Your task to perform on an android device: Open accessibility settings Image 0: 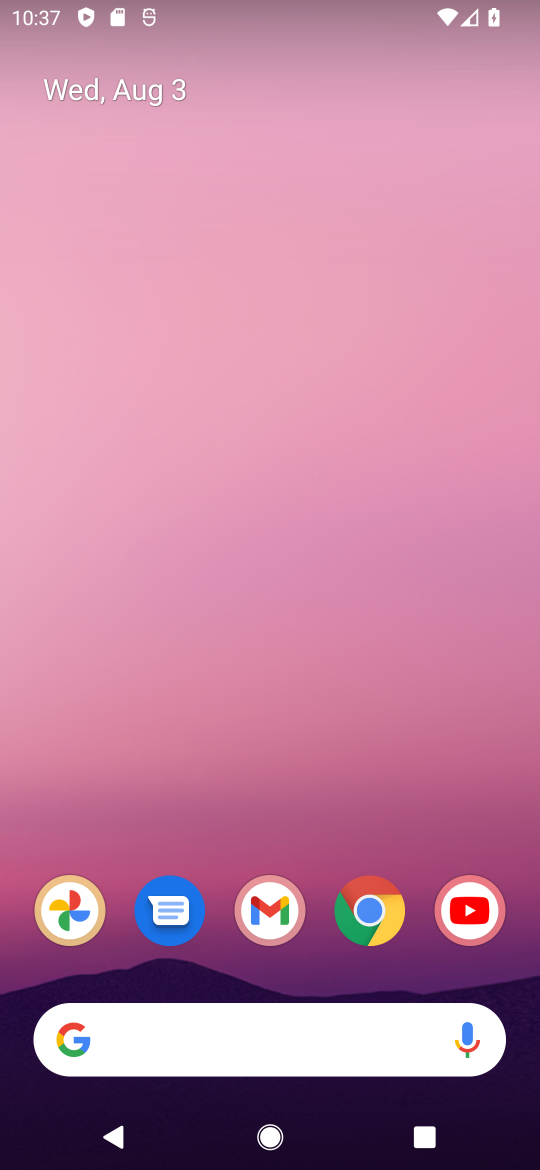
Step 0: press home button
Your task to perform on an android device: Open accessibility settings Image 1: 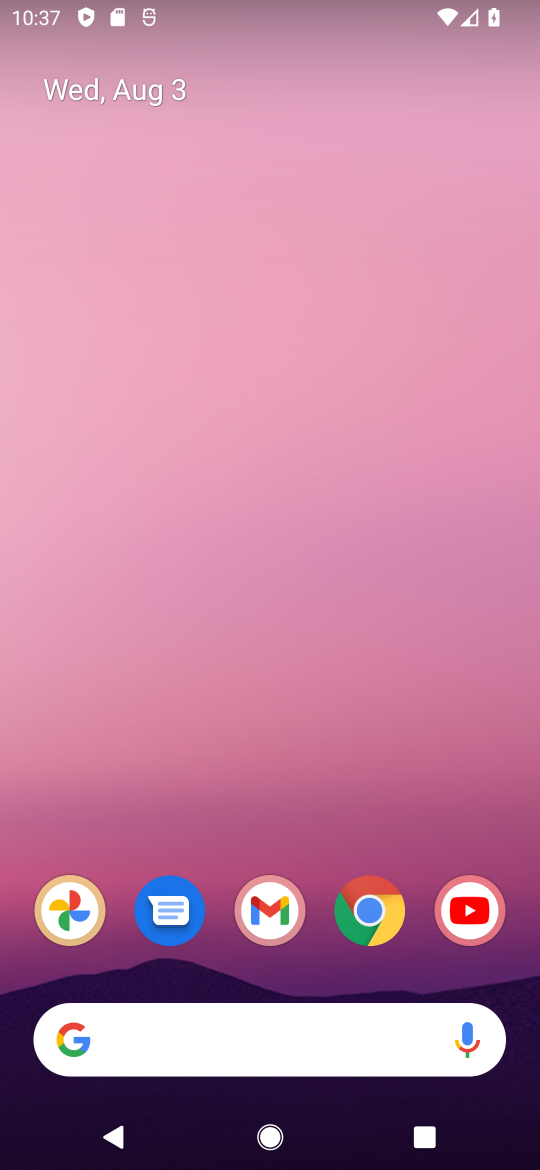
Step 1: drag from (309, 861) to (307, 12)
Your task to perform on an android device: Open accessibility settings Image 2: 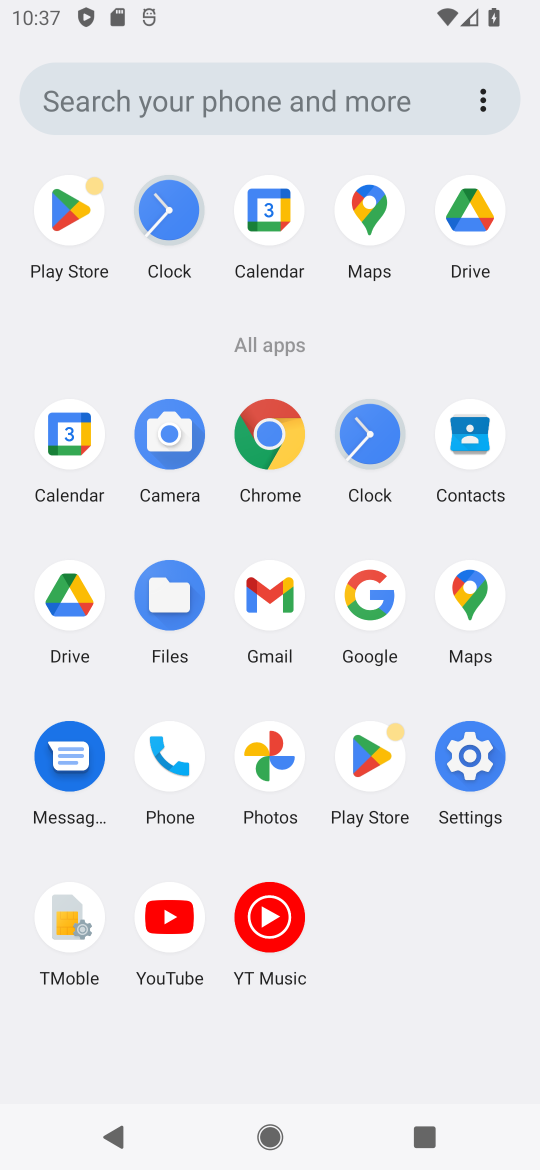
Step 2: click (470, 751)
Your task to perform on an android device: Open accessibility settings Image 3: 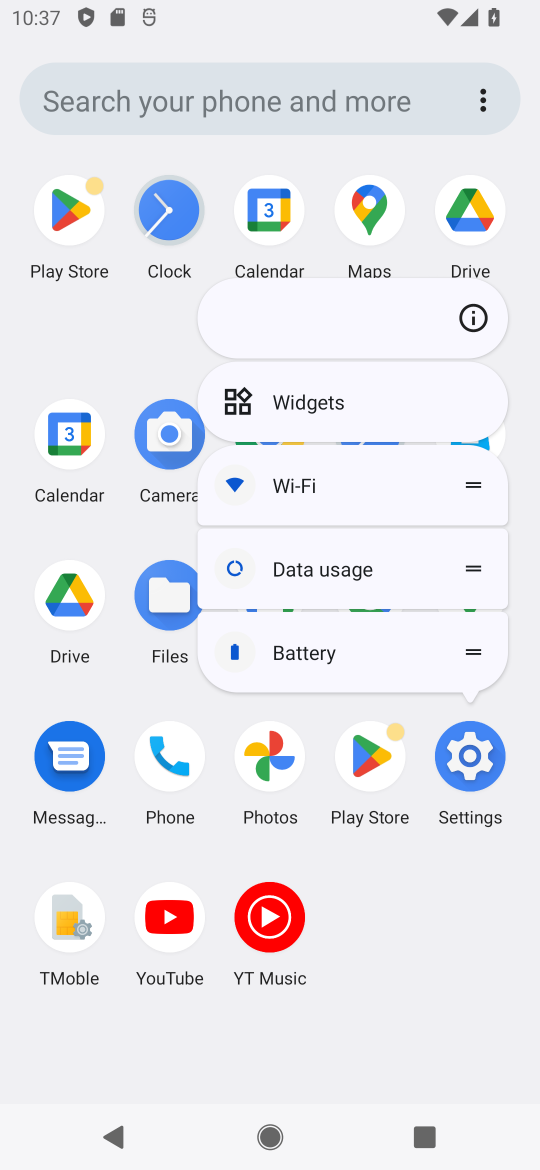
Step 3: click (467, 751)
Your task to perform on an android device: Open accessibility settings Image 4: 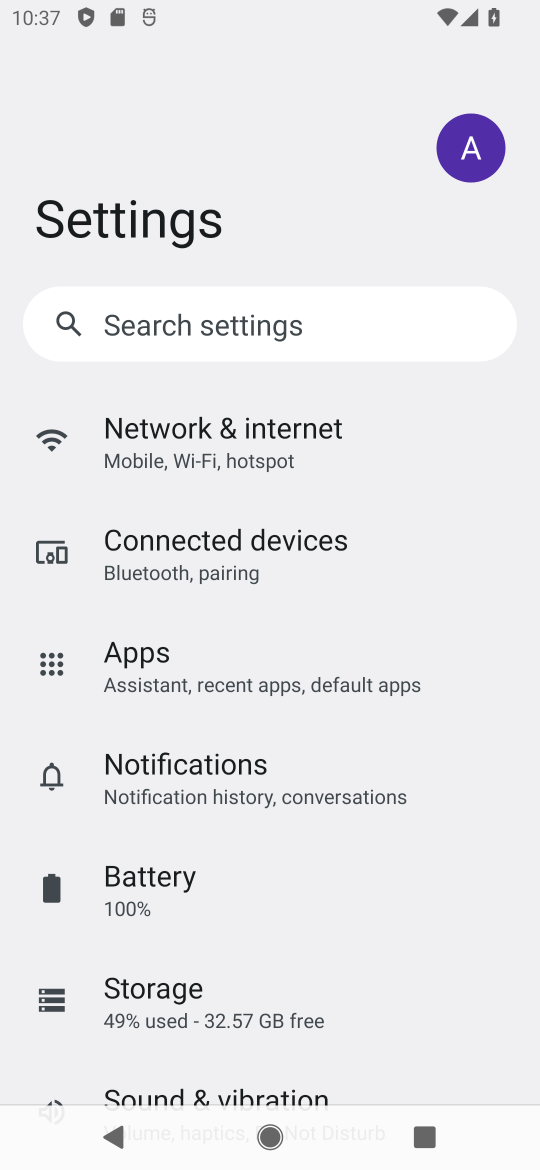
Step 4: drag from (285, 1066) to (354, 122)
Your task to perform on an android device: Open accessibility settings Image 5: 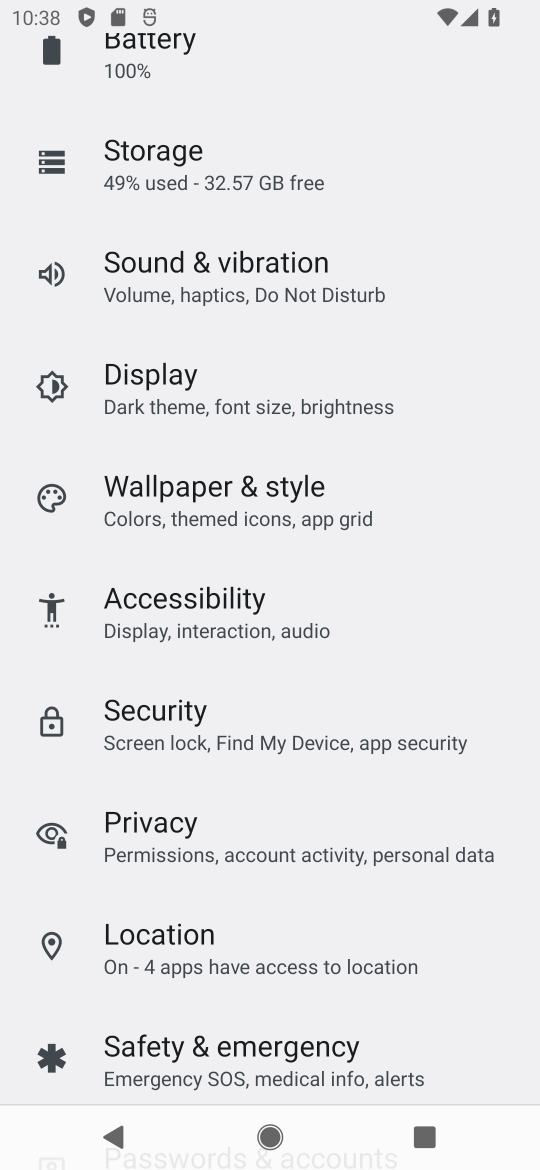
Step 5: click (297, 597)
Your task to perform on an android device: Open accessibility settings Image 6: 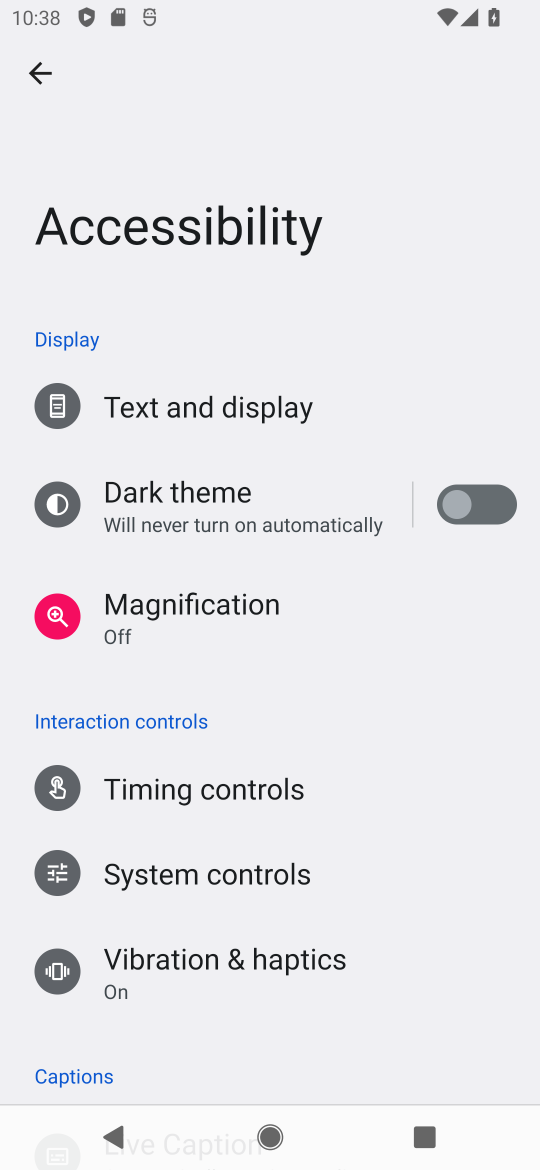
Step 6: task complete